Your task to perform on an android device: delete the emails in spam in the gmail app Image 0: 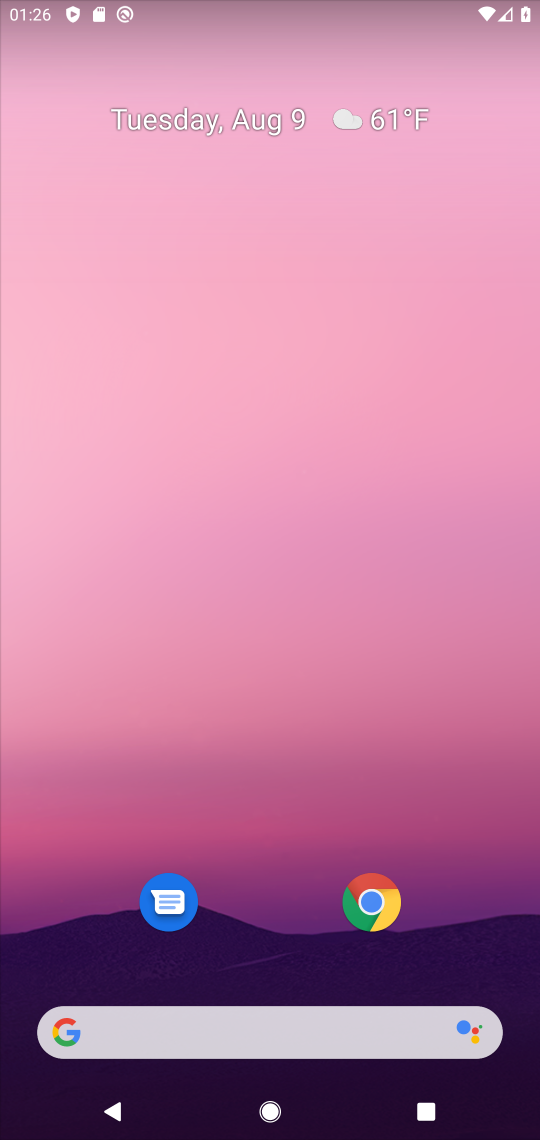
Step 0: drag from (275, 846) to (389, 336)
Your task to perform on an android device: delete the emails in spam in the gmail app Image 1: 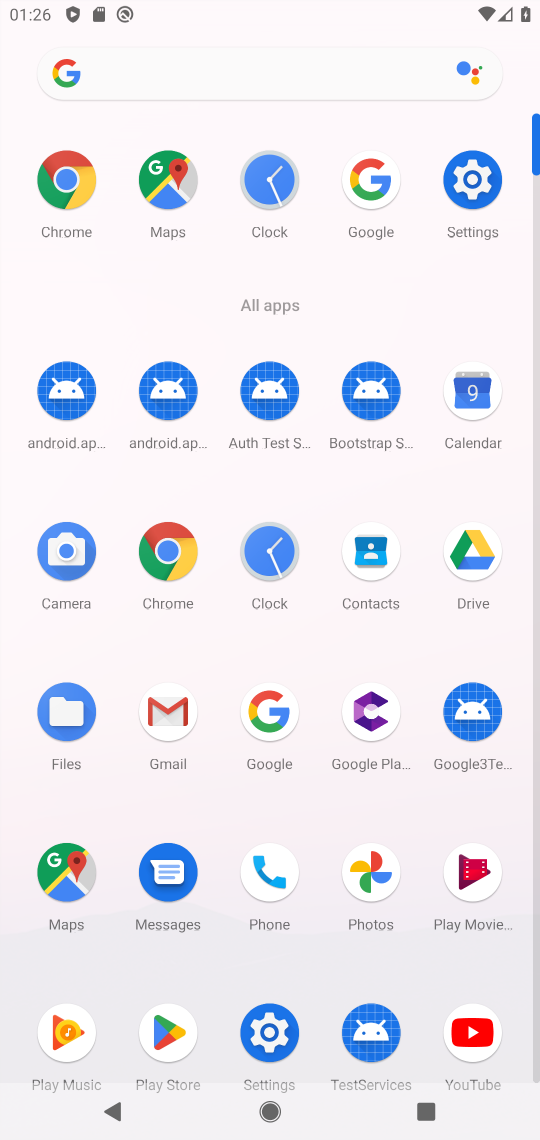
Step 1: click (155, 720)
Your task to perform on an android device: delete the emails in spam in the gmail app Image 2: 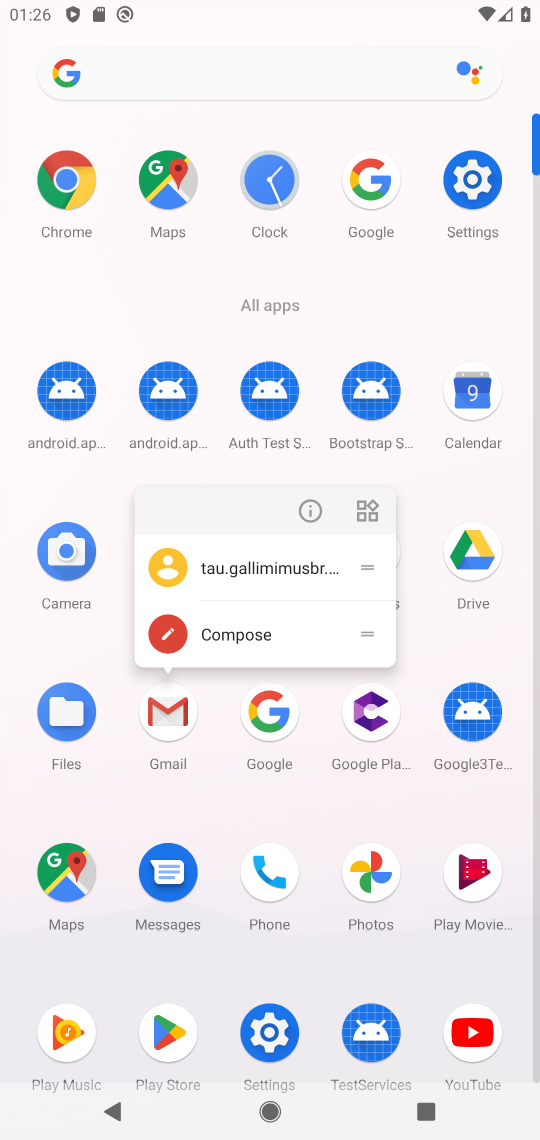
Step 2: click (167, 726)
Your task to perform on an android device: delete the emails in spam in the gmail app Image 3: 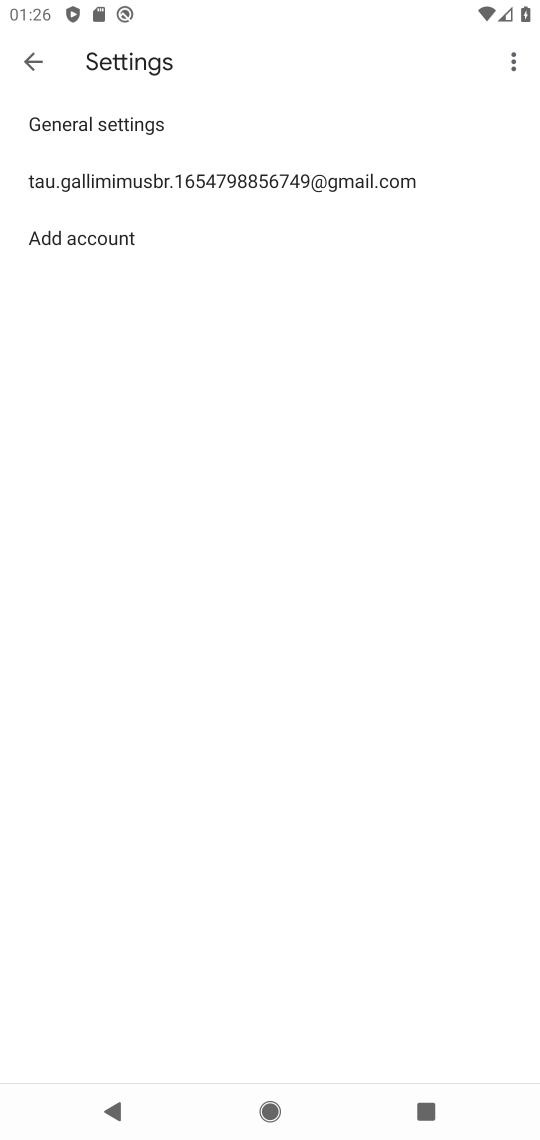
Step 3: click (31, 68)
Your task to perform on an android device: delete the emails in spam in the gmail app Image 4: 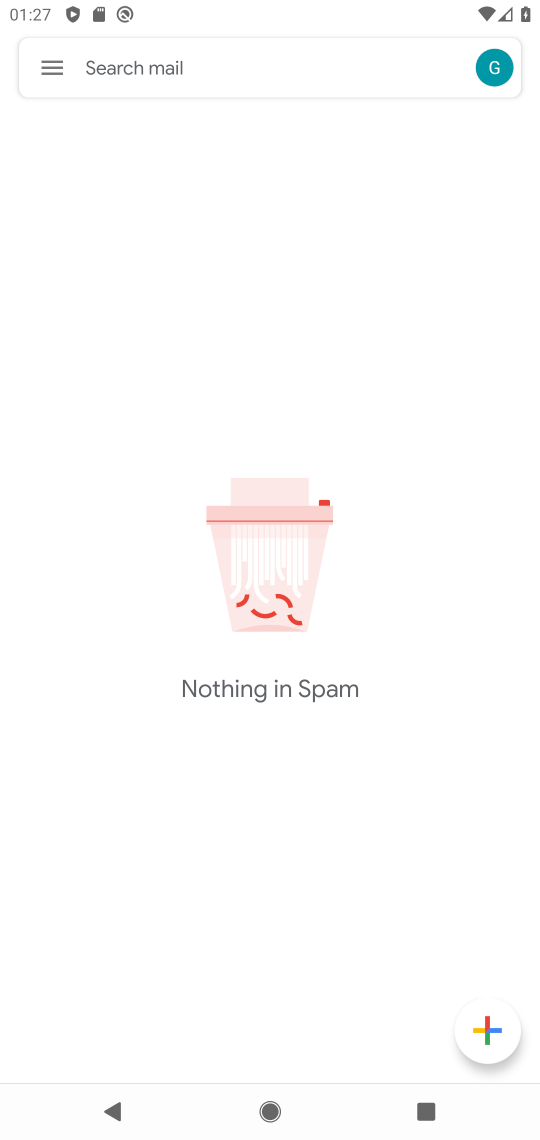
Step 4: click (55, 61)
Your task to perform on an android device: delete the emails in spam in the gmail app Image 5: 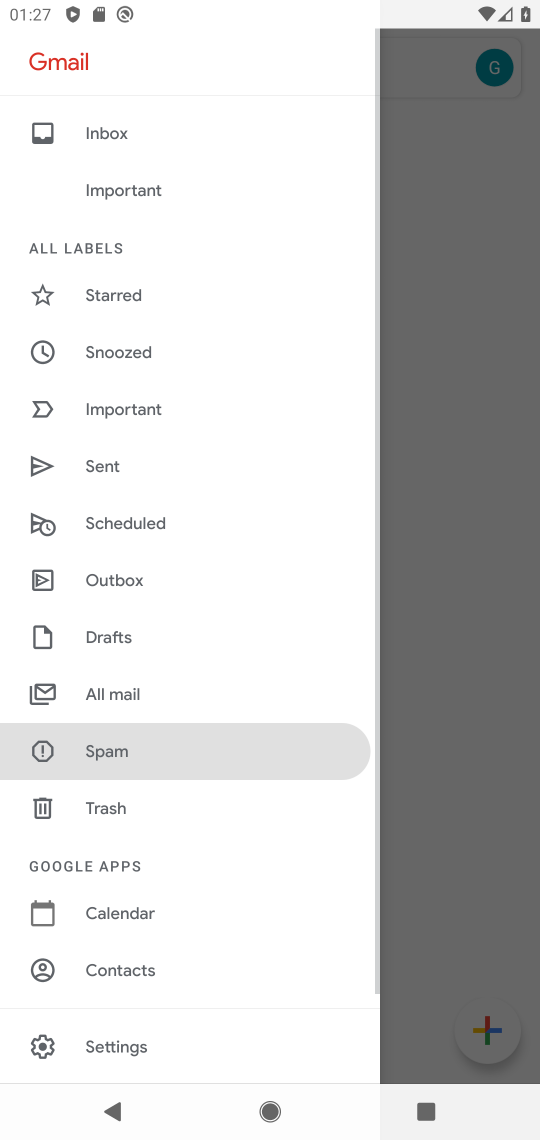
Step 5: click (104, 135)
Your task to perform on an android device: delete the emails in spam in the gmail app Image 6: 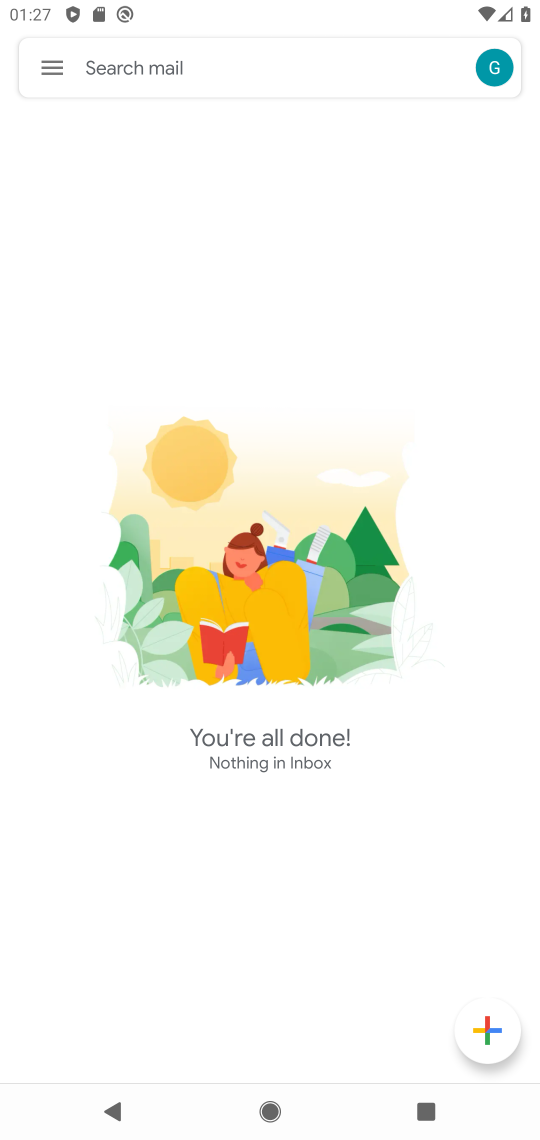
Step 6: task complete